Your task to perform on an android device: Go to Wikipedia Image 0: 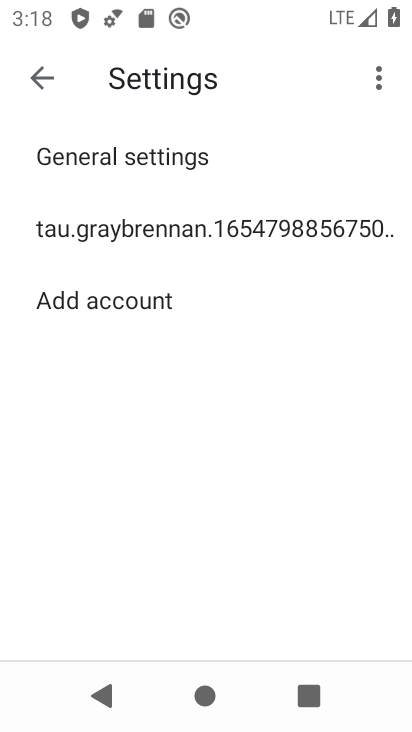
Step 0: press home button
Your task to perform on an android device: Go to Wikipedia Image 1: 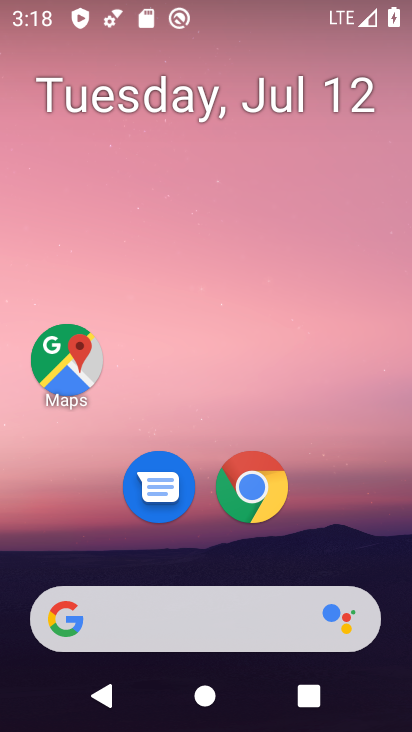
Step 1: drag from (177, 686) to (280, 317)
Your task to perform on an android device: Go to Wikipedia Image 2: 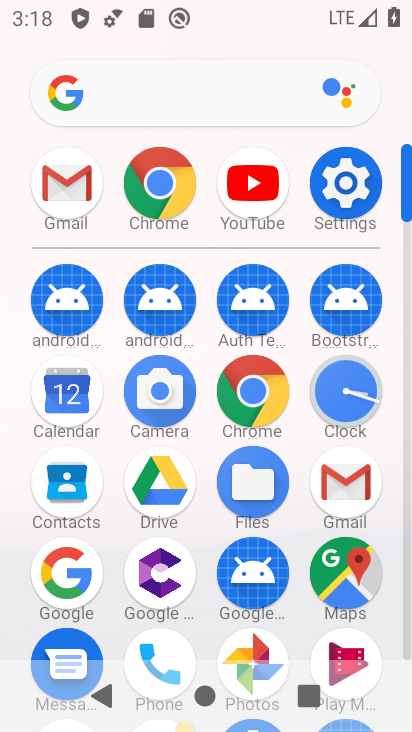
Step 2: drag from (237, 523) to (284, 288)
Your task to perform on an android device: Go to Wikipedia Image 3: 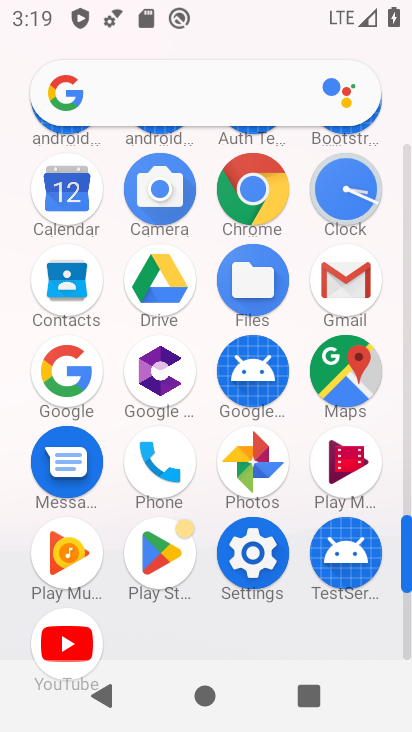
Step 3: click (261, 201)
Your task to perform on an android device: Go to Wikipedia Image 4: 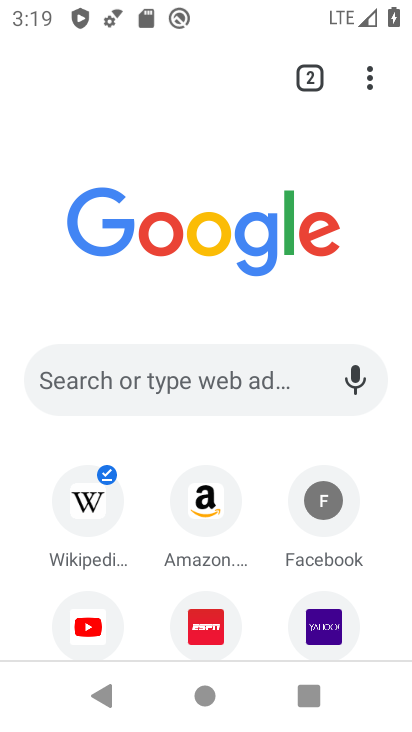
Step 4: click (102, 521)
Your task to perform on an android device: Go to Wikipedia Image 5: 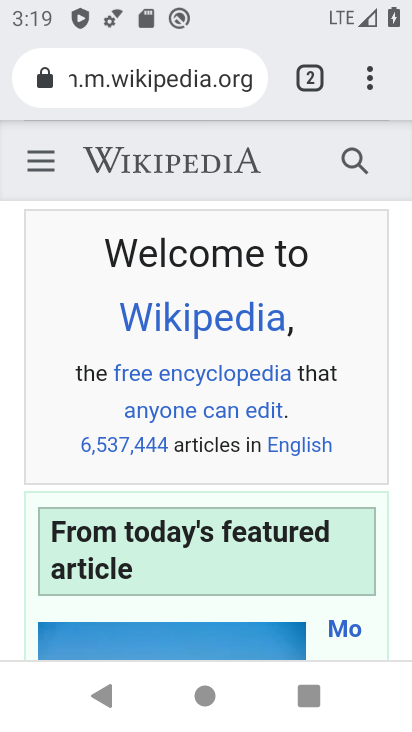
Step 5: task complete